Your task to perform on an android device: turn on airplane mode Image 0: 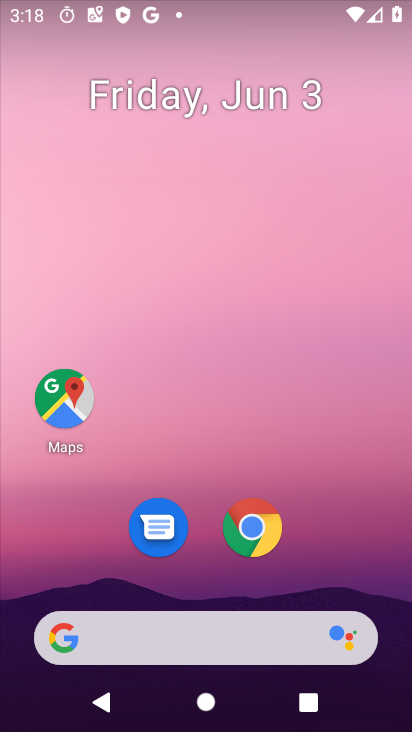
Step 0: drag from (239, 551) to (235, 186)
Your task to perform on an android device: turn on airplane mode Image 1: 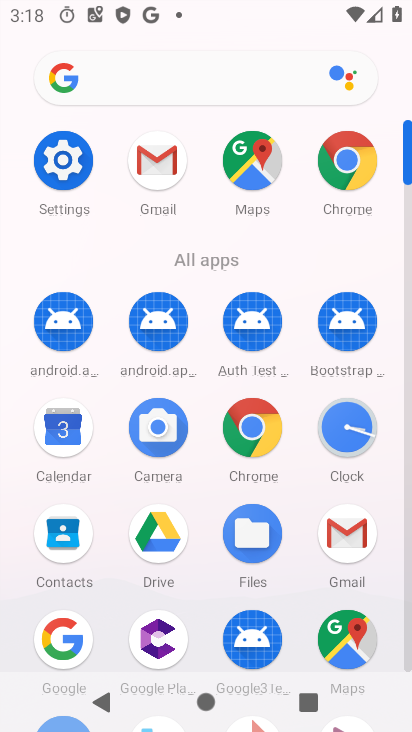
Step 1: click (71, 154)
Your task to perform on an android device: turn on airplane mode Image 2: 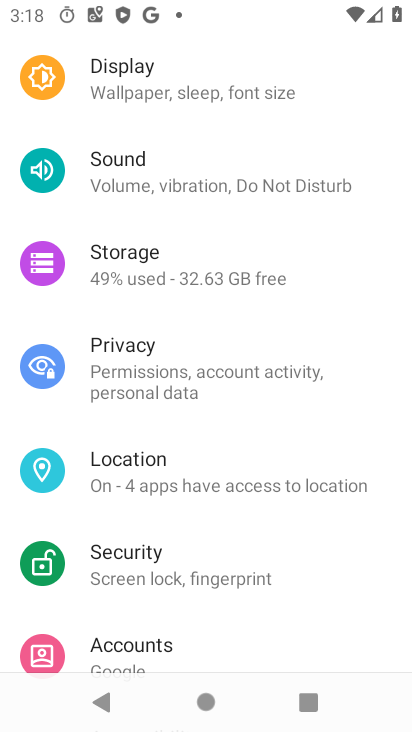
Step 2: drag from (217, 140) to (194, 498)
Your task to perform on an android device: turn on airplane mode Image 3: 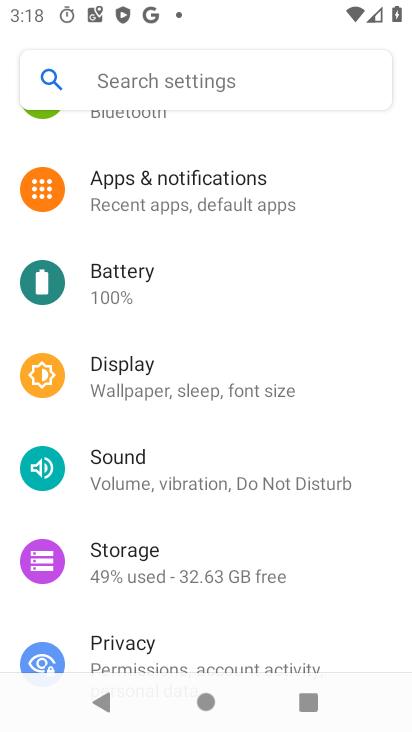
Step 3: drag from (226, 199) to (227, 434)
Your task to perform on an android device: turn on airplane mode Image 4: 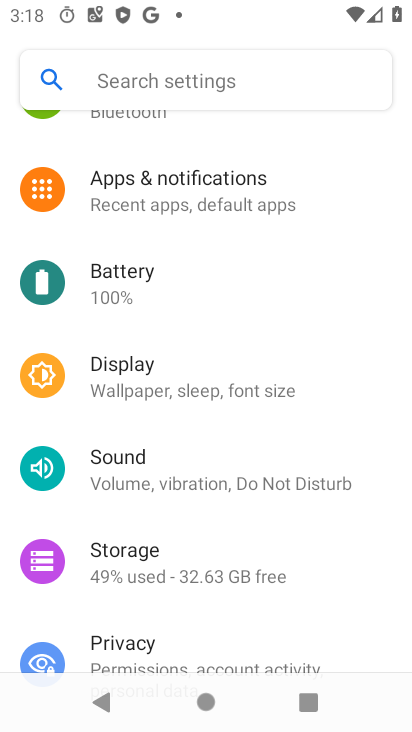
Step 4: drag from (168, 152) to (171, 492)
Your task to perform on an android device: turn on airplane mode Image 5: 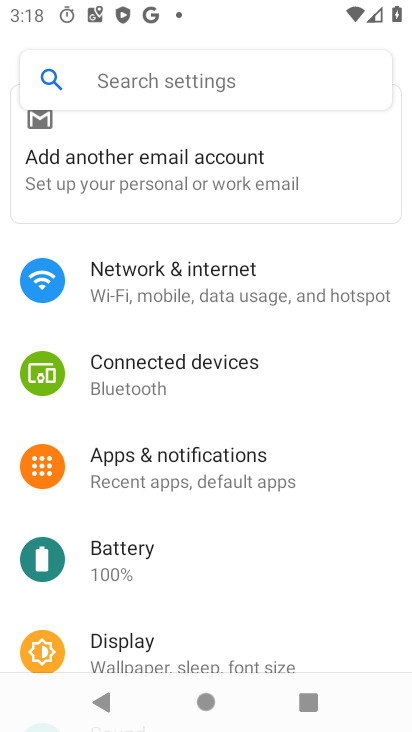
Step 5: drag from (185, 125) to (193, 427)
Your task to perform on an android device: turn on airplane mode Image 6: 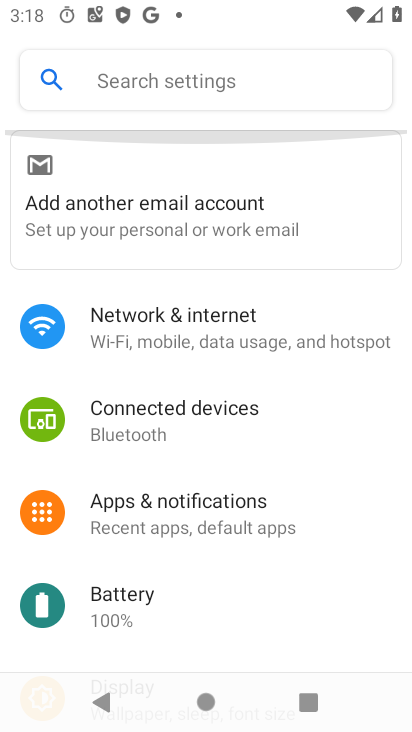
Step 6: click (159, 296)
Your task to perform on an android device: turn on airplane mode Image 7: 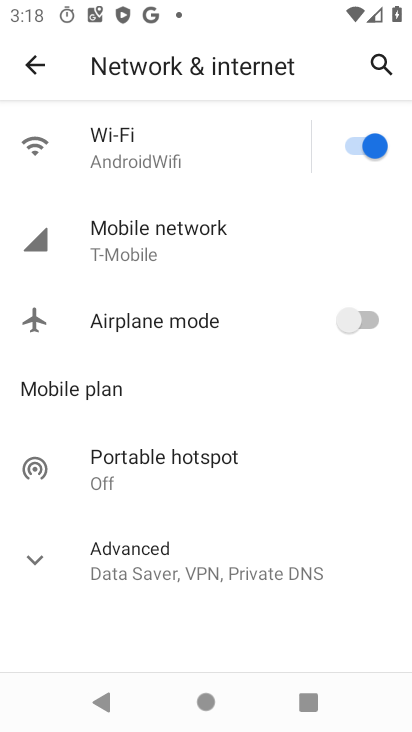
Step 7: click (356, 324)
Your task to perform on an android device: turn on airplane mode Image 8: 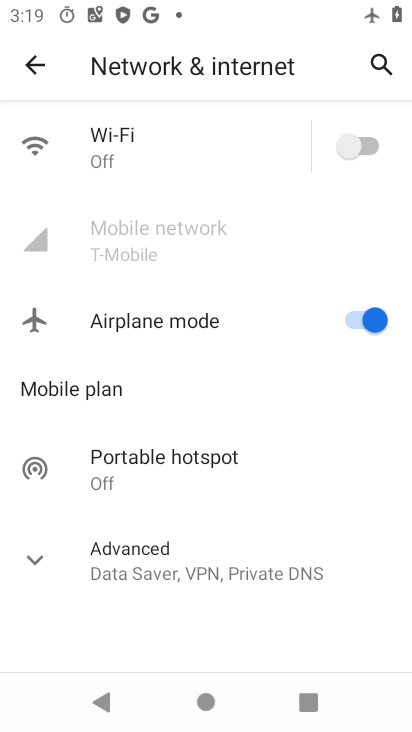
Step 8: task complete